Your task to perform on an android device: set an alarm Image 0: 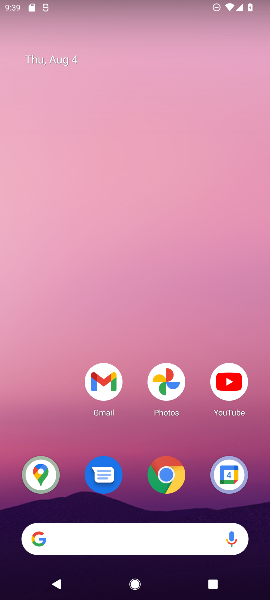
Step 0: drag from (138, 509) to (148, 209)
Your task to perform on an android device: set an alarm Image 1: 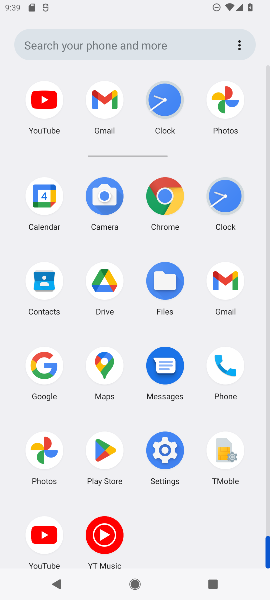
Step 1: click (224, 191)
Your task to perform on an android device: set an alarm Image 2: 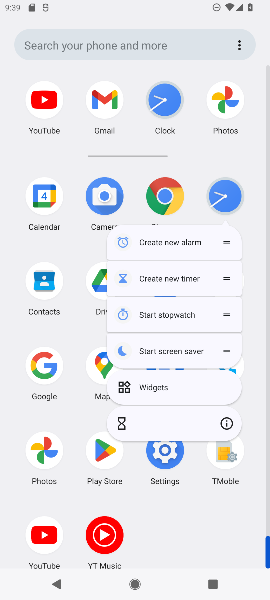
Step 2: click (232, 436)
Your task to perform on an android device: set an alarm Image 3: 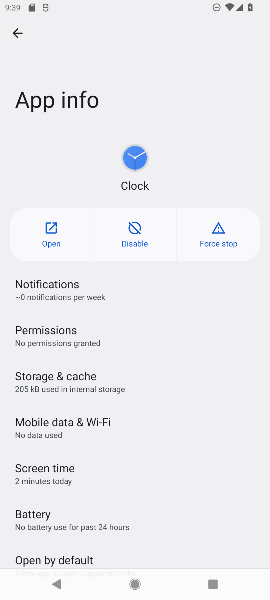
Step 3: click (43, 229)
Your task to perform on an android device: set an alarm Image 4: 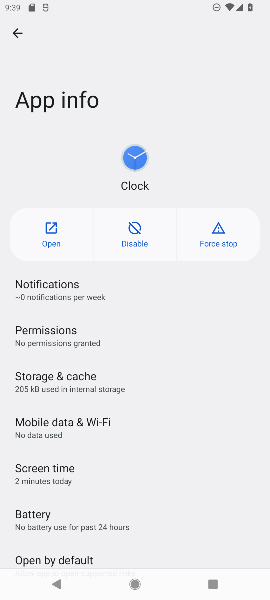
Step 4: click (43, 229)
Your task to perform on an android device: set an alarm Image 5: 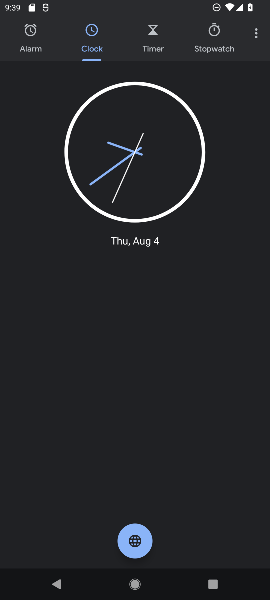
Step 5: drag from (157, 373) to (157, 304)
Your task to perform on an android device: set an alarm Image 6: 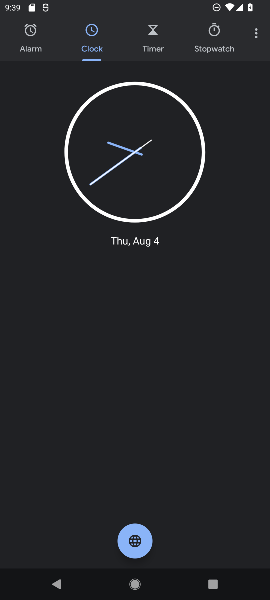
Step 6: click (39, 42)
Your task to perform on an android device: set an alarm Image 7: 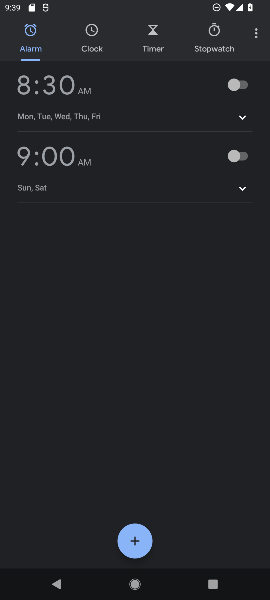
Step 7: drag from (65, 404) to (77, 199)
Your task to perform on an android device: set an alarm Image 8: 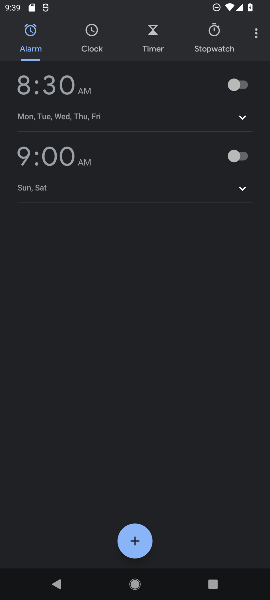
Step 8: drag from (140, 354) to (145, 252)
Your task to perform on an android device: set an alarm Image 9: 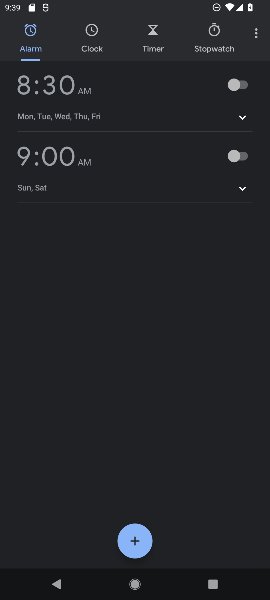
Step 9: click (227, 80)
Your task to perform on an android device: set an alarm Image 10: 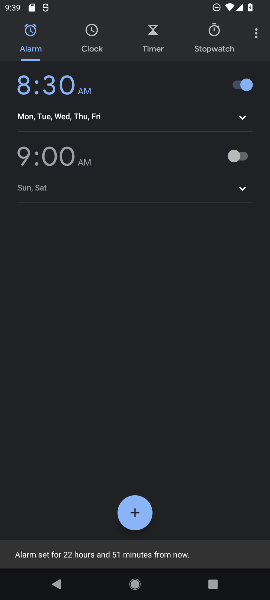
Step 10: task complete